Your task to perform on an android device: Open notification settings Image 0: 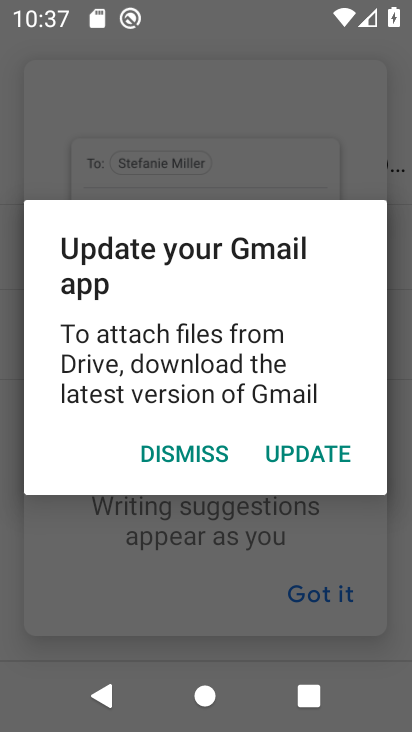
Step 0: press home button
Your task to perform on an android device: Open notification settings Image 1: 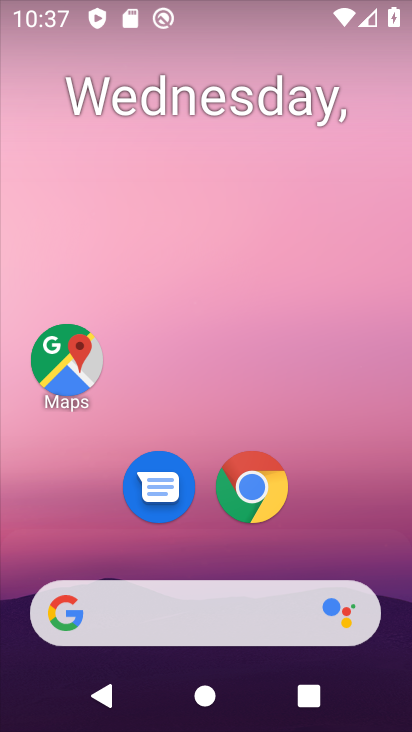
Step 1: drag from (368, 491) to (303, 123)
Your task to perform on an android device: Open notification settings Image 2: 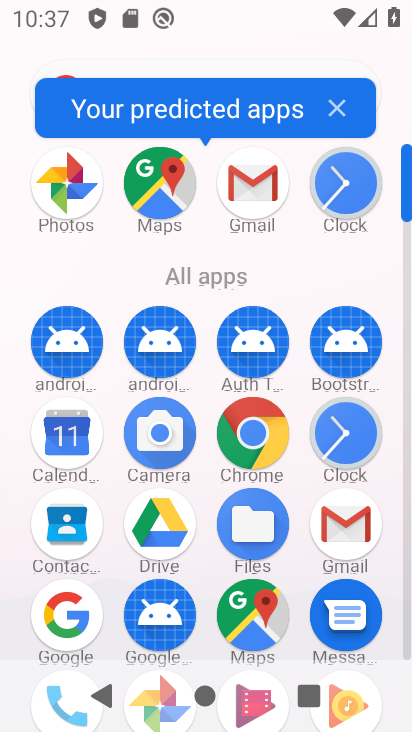
Step 2: drag from (205, 287) to (160, 52)
Your task to perform on an android device: Open notification settings Image 3: 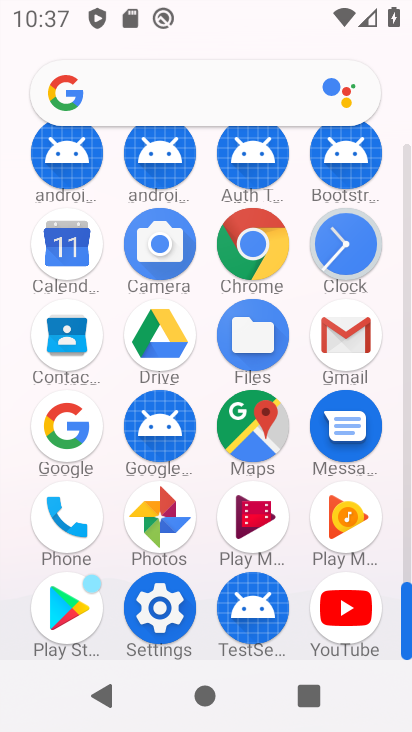
Step 3: click (171, 610)
Your task to perform on an android device: Open notification settings Image 4: 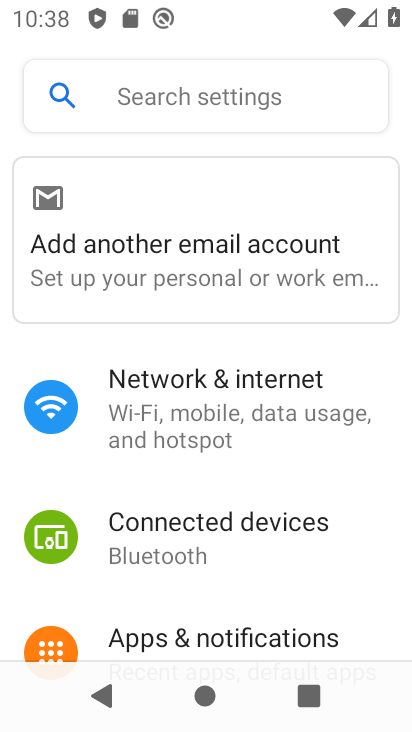
Step 4: click (289, 639)
Your task to perform on an android device: Open notification settings Image 5: 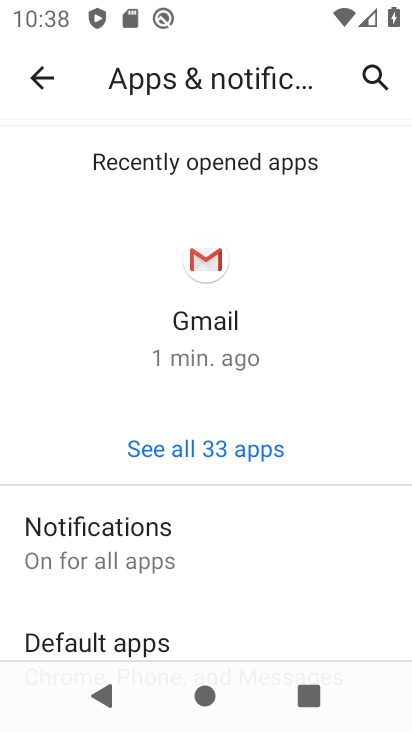
Step 5: click (188, 558)
Your task to perform on an android device: Open notification settings Image 6: 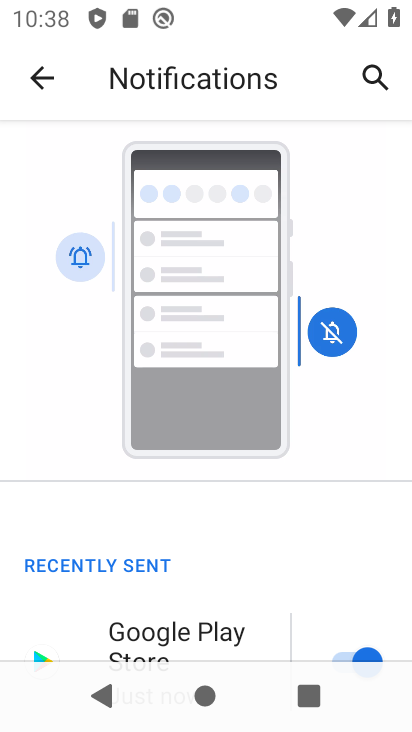
Step 6: task complete